Your task to perform on an android device: Turn off the flashlight Image 0: 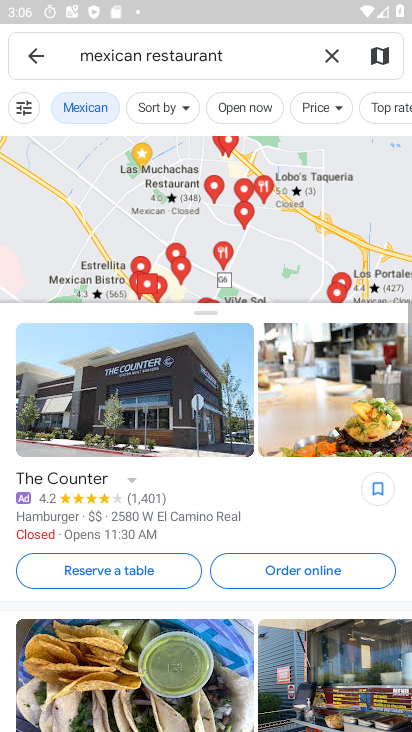
Step 0: press home button
Your task to perform on an android device: Turn off the flashlight Image 1: 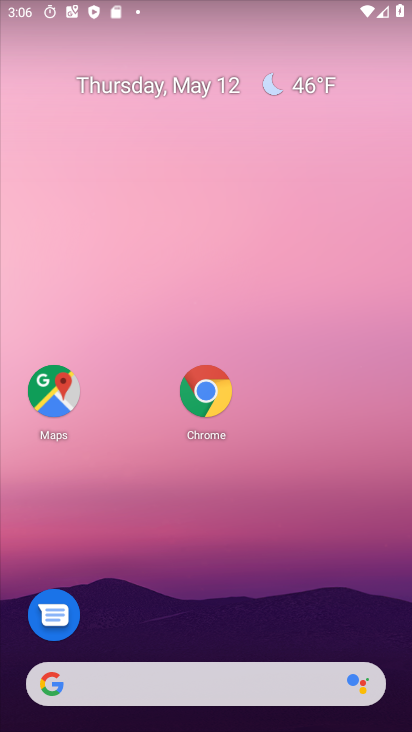
Step 1: drag from (191, 575) to (188, 122)
Your task to perform on an android device: Turn off the flashlight Image 2: 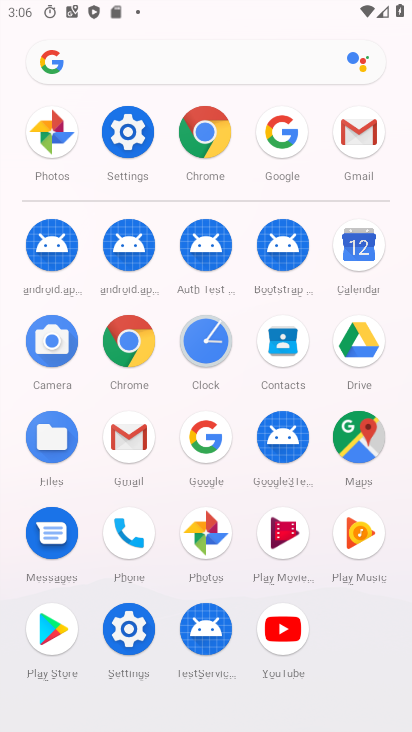
Step 2: click (126, 136)
Your task to perform on an android device: Turn off the flashlight Image 3: 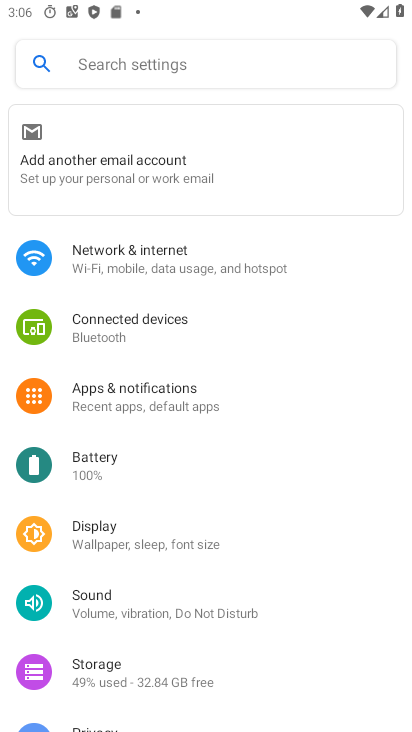
Step 3: click (161, 65)
Your task to perform on an android device: Turn off the flashlight Image 4: 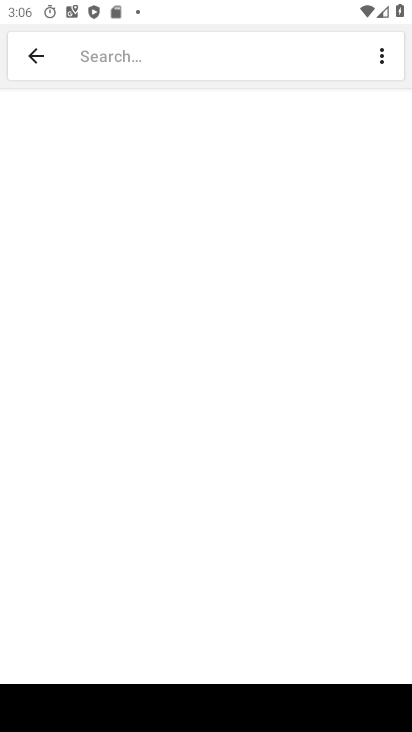
Step 4: type "flash"
Your task to perform on an android device: Turn off the flashlight Image 5: 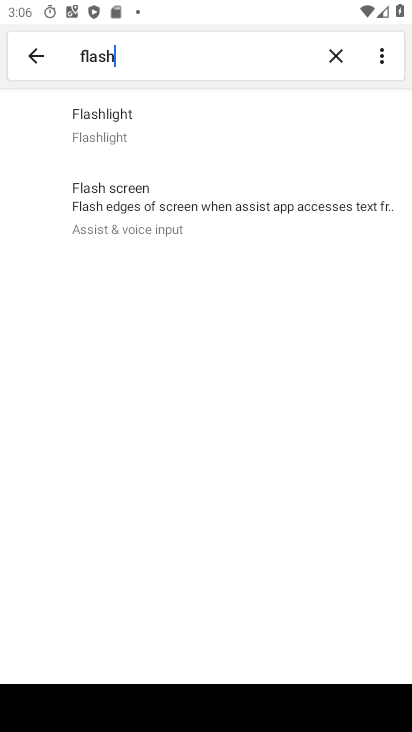
Step 5: task complete